Your task to perform on an android device: Search for "lg ultragear" on newegg, select the first entry, add it to the cart, then select checkout. Image 0: 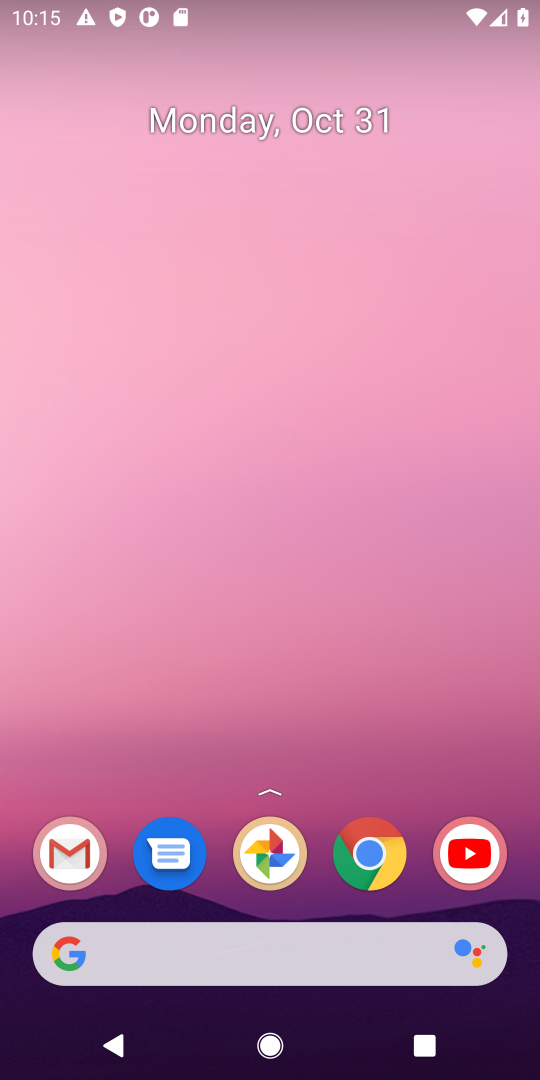
Step 0: click (287, 948)
Your task to perform on an android device: Search for "lg ultragear" on newegg, select the first entry, add it to the cart, then select checkout. Image 1: 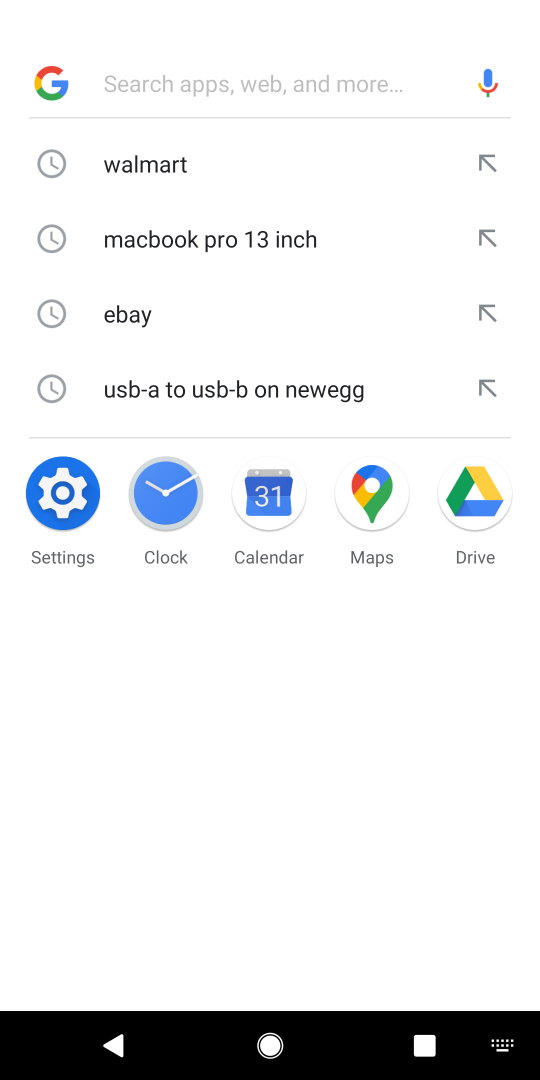
Step 1: type " newegg"
Your task to perform on an android device: Search for "lg ultragear" on newegg, select the first entry, add it to the cart, then select checkout. Image 2: 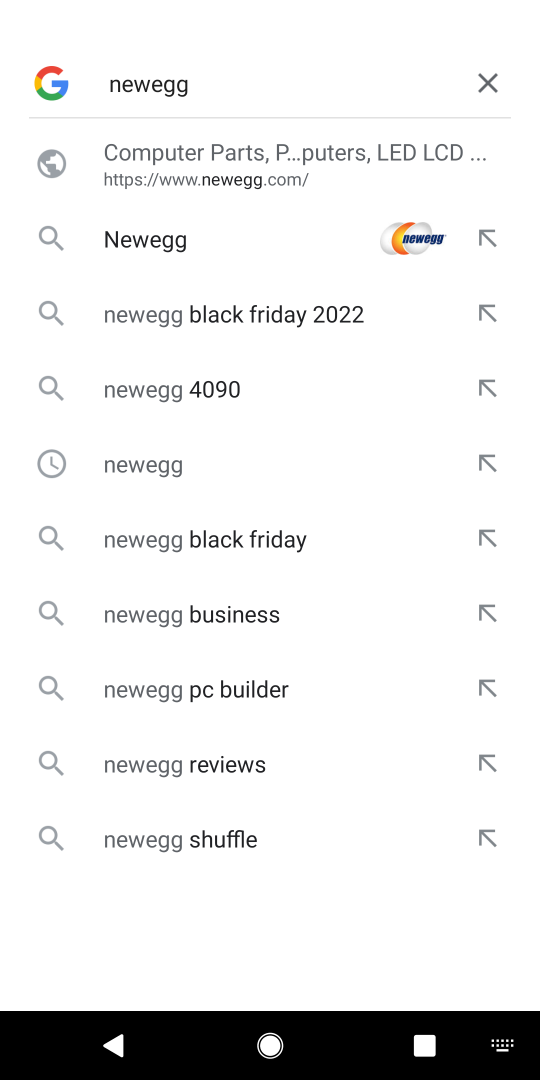
Step 2: type ""
Your task to perform on an android device: Search for "lg ultragear" on newegg, select the first entry, add it to the cart, then select checkout. Image 3: 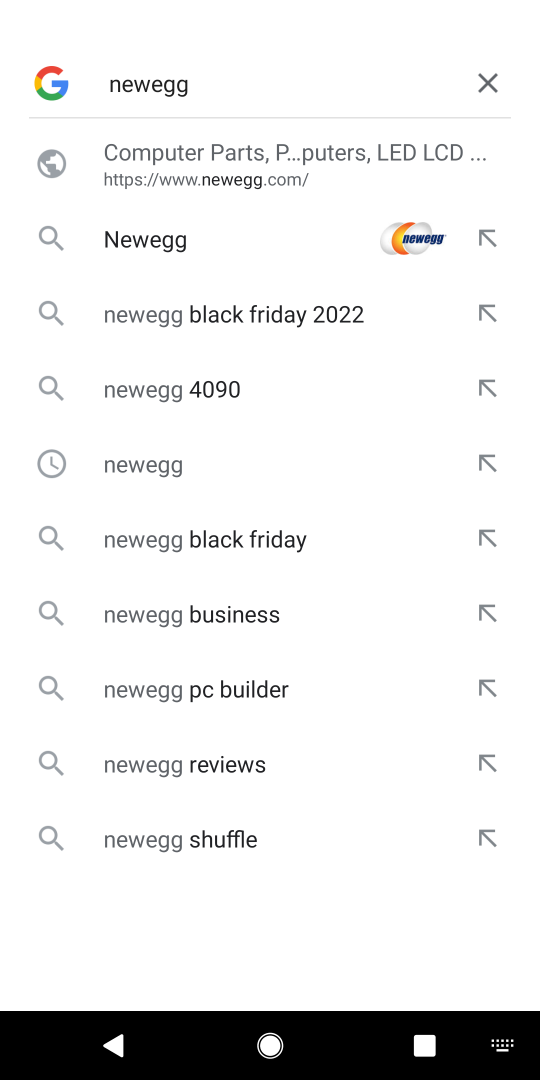
Step 3: press enter
Your task to perform on an android device: Search for "lg ultragear" on newegg, select the first entry, add it to the cart, then select checkout. Image 4: 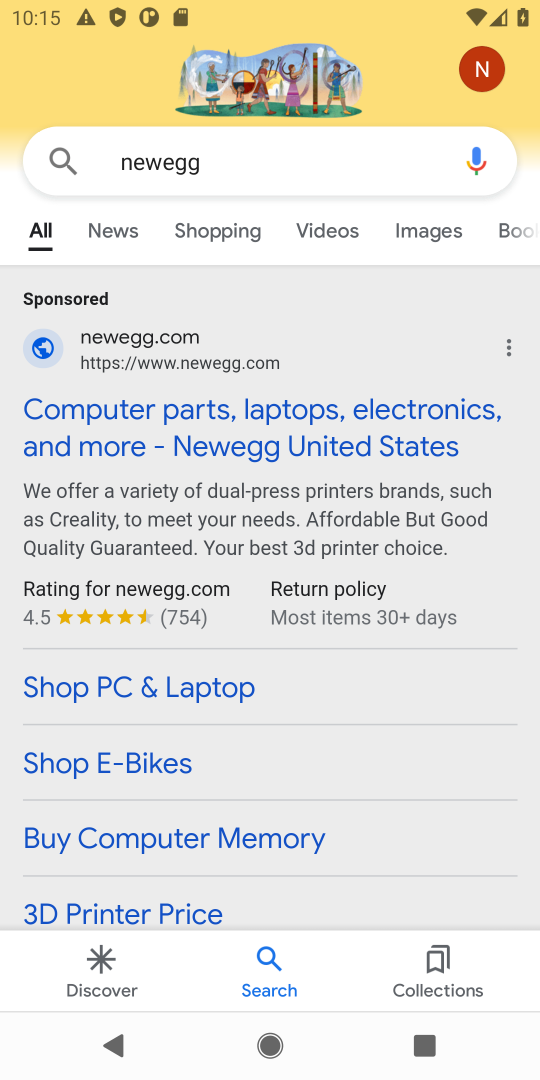
Step 4: click (178, 441)
Your task to perform on an android device: Search for "lg ultragear" on newegg, select the first entry, add it to the cart, then select checkout. Image 5: 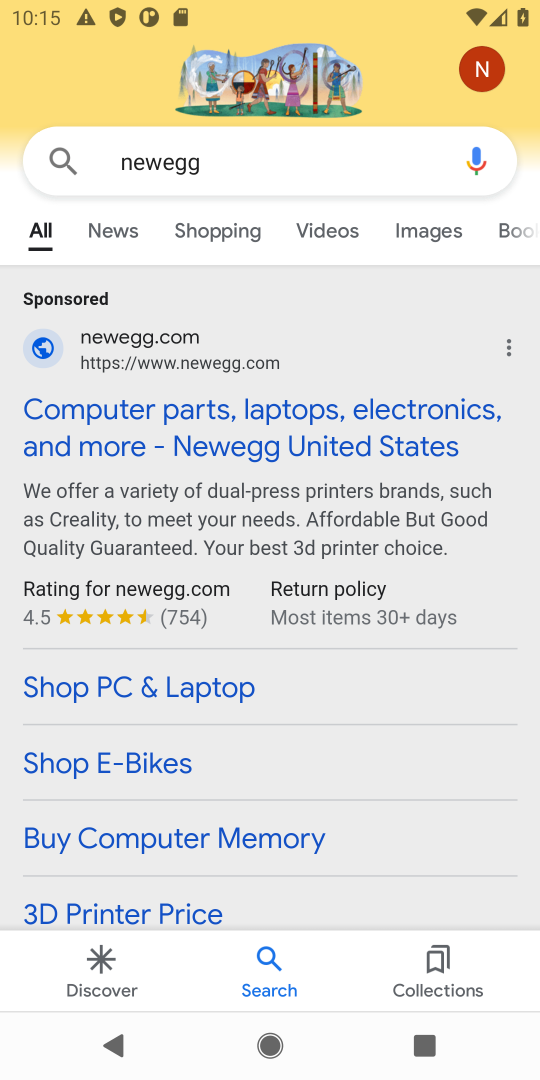
Step 5: click (242, 452)
Your task to perform on an android device: Search for "lg ultragear" on newegg, select the first entry, add it to the cart, then select checkout. Image 6: 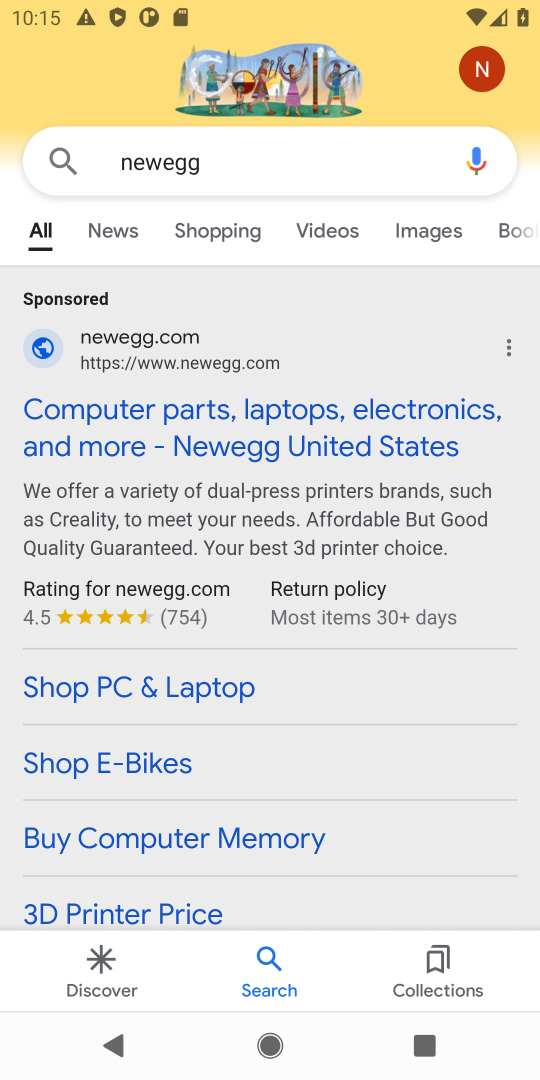
Step 6: click (242, 452)
Your task to perform on an android device: Search for "lg ultragear" on newegg, select the first entry, add it to the cart, then select checkout. Image 7: 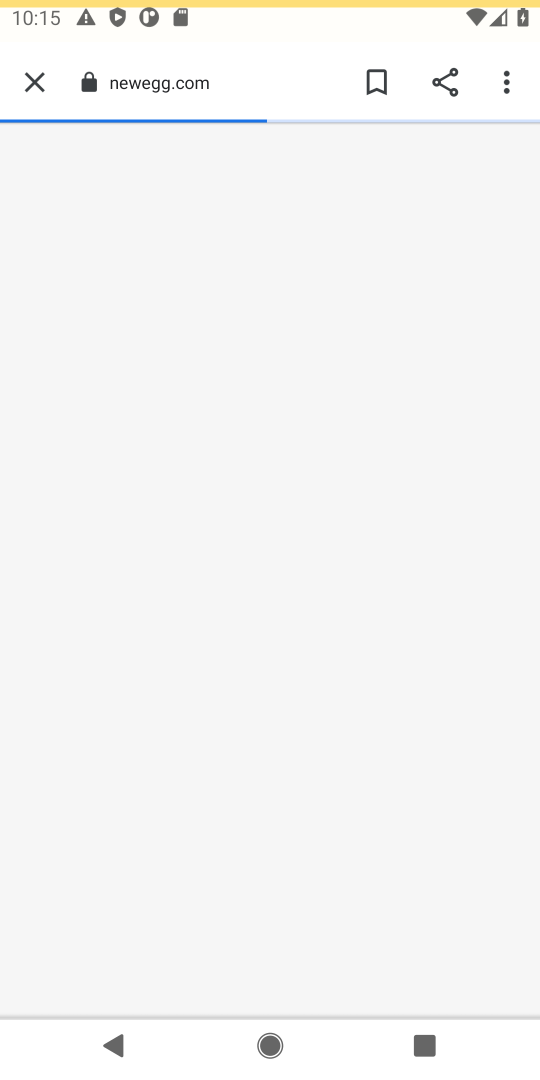
Step 7: click (242, 452)
Your task to perform on an android device: Search for "lg ultragear" on newegg, select the first entry, add it to the cart, then select checkout. Image 8: 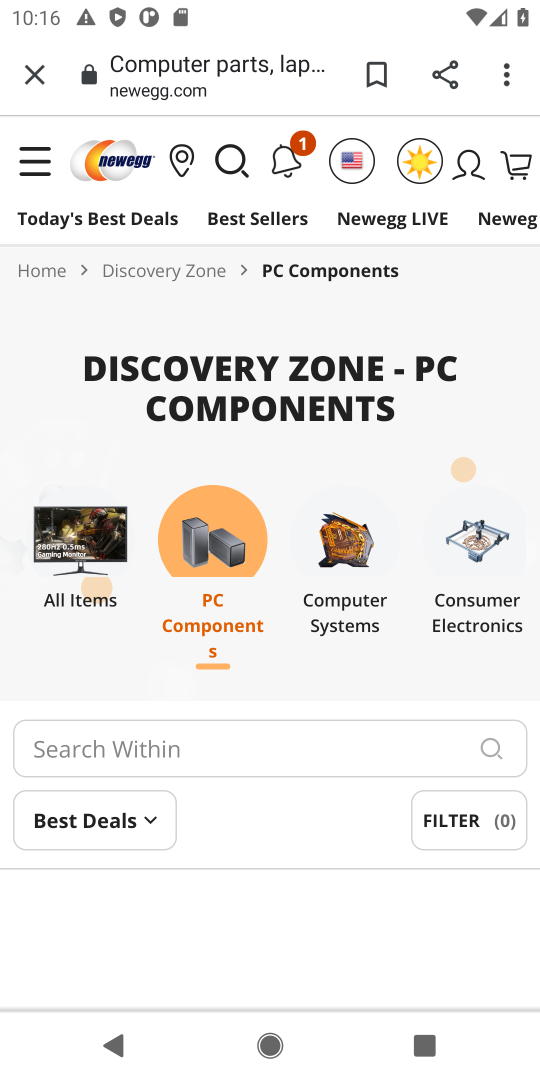
Step 8: drag from (434, 285) to (436, 544)
Your task to perform on an android device: Search for "lg ultragear" on newegg, select the first entry, add it to the cart, then select checkout. Image 9: 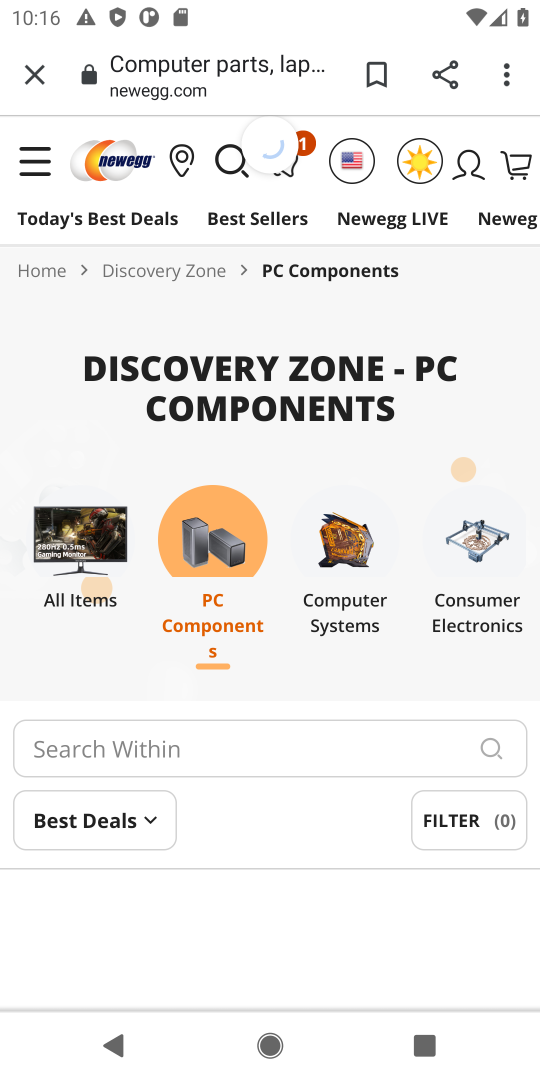
Step 9: click (256, 754)
Your task to perform on an android device: Search for "lg ultragear" on newegg, select the first entry, add it to the cart, then select checkout. Image 10: 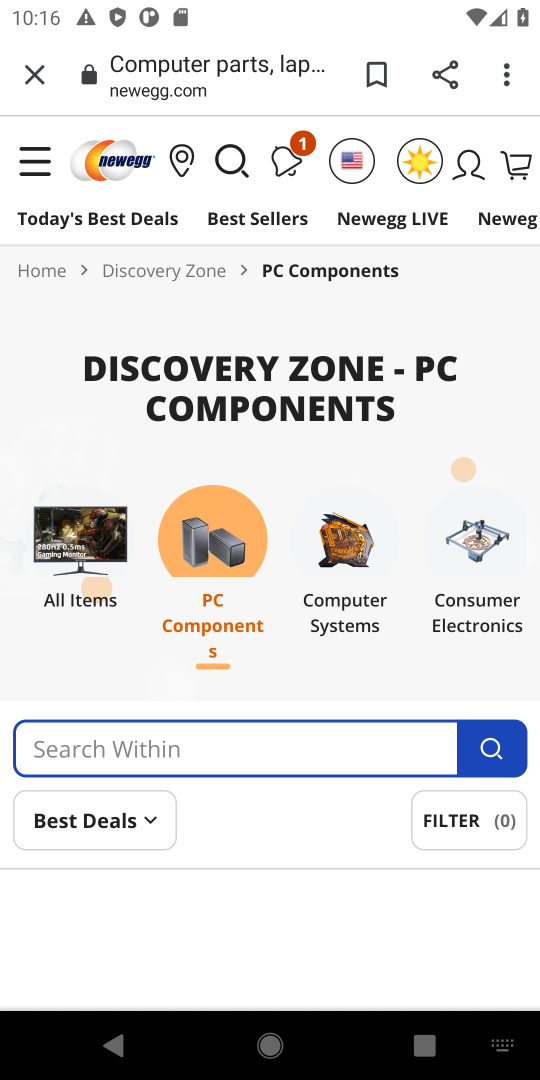
Step 10: type "lg ultragear"
Your task to perform on an android device: Search for "lg ultragear" on newegg, select the first entry, add it to the cart, then select checkout. Image 11: 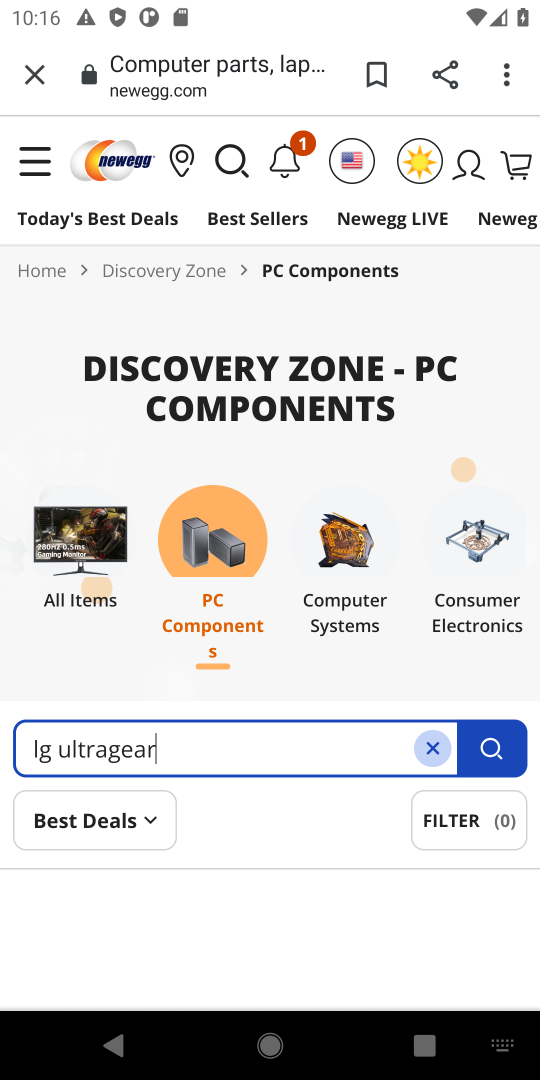
Step 11: type ""
Your task to perform on an android device: Search for "lg ultragear" on newegg, select the first entry, add it to the cart, then select checkout. Image 12: 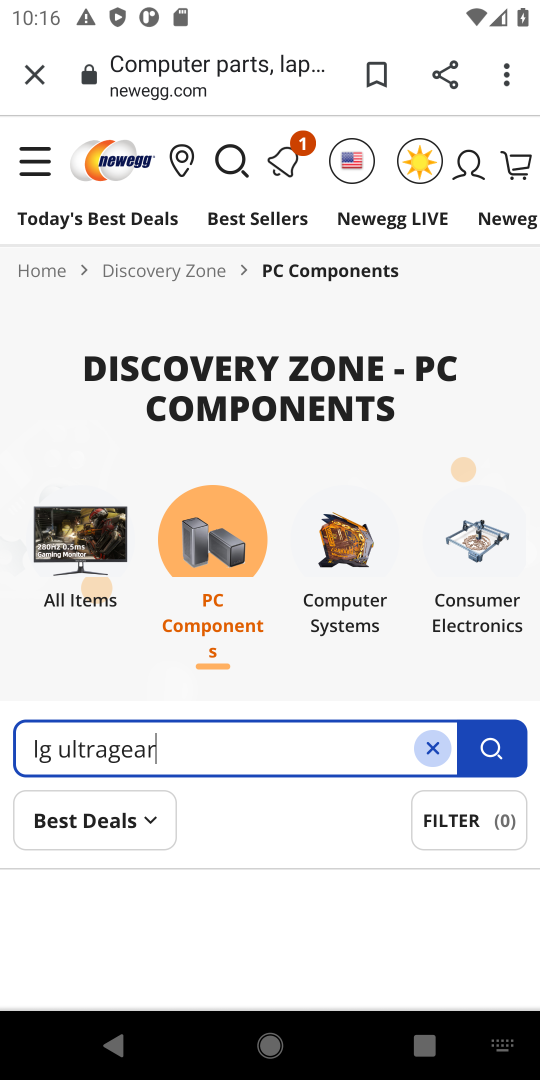
Step 12: click (504, 758)
Your task to perform on an android device: Search for "lg ultragear" on newegg, select the first entry, add it to the cart, then select checkout. Image 13: 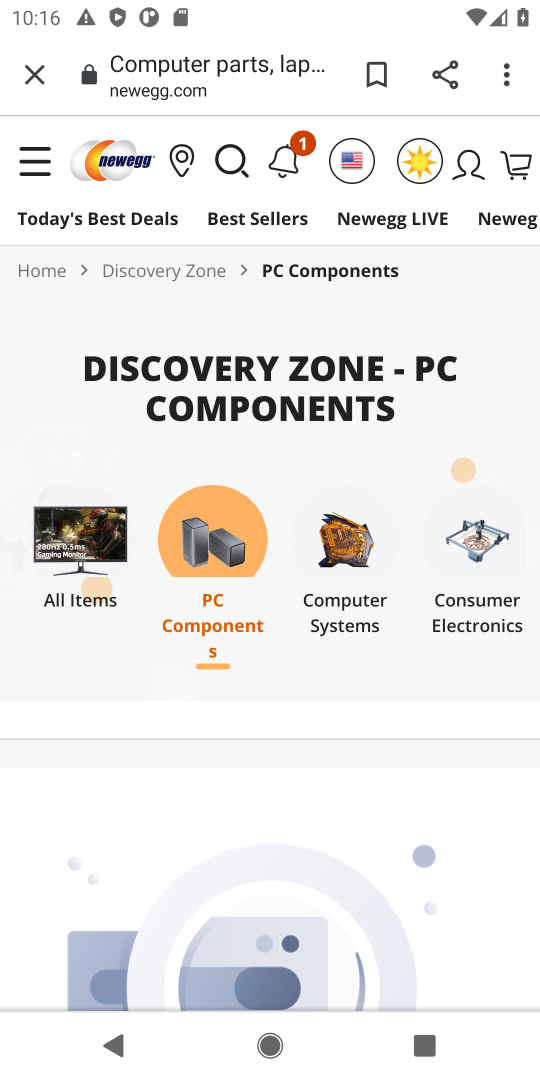
Step 13: drag from (355, 749) to (267, 368)
Your task to perform on an android device: Search for "lg ultragear" on newegg, select the first entry, add it to the cart, then select checkout. Image 14: 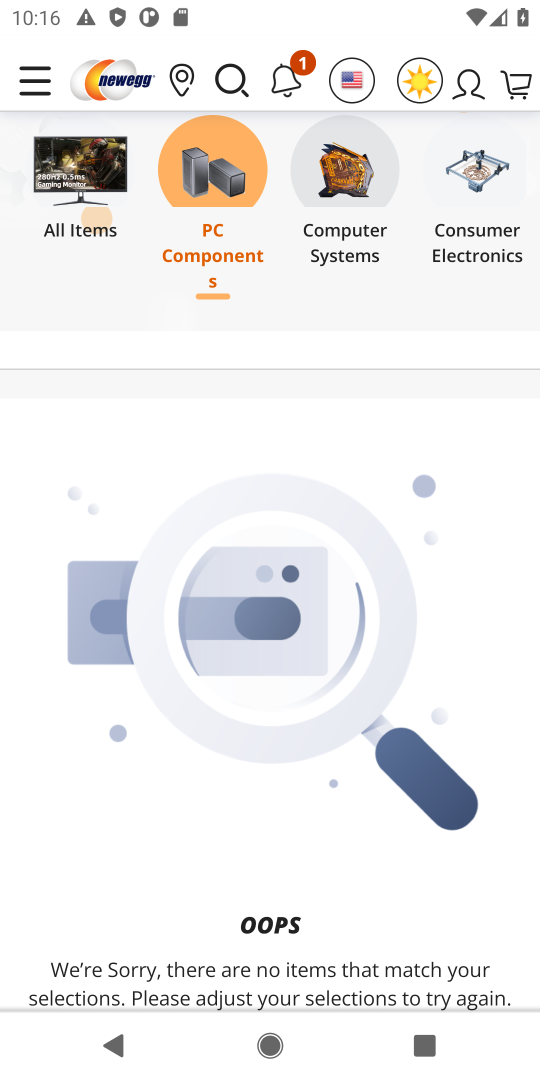
Step 14: drag from (213, 327) to (149, 849)
Your task to perform on an android device: Search for "lg ultragear" on newegg, select the first entry, add it to the cart, then select checkout. Image 15: 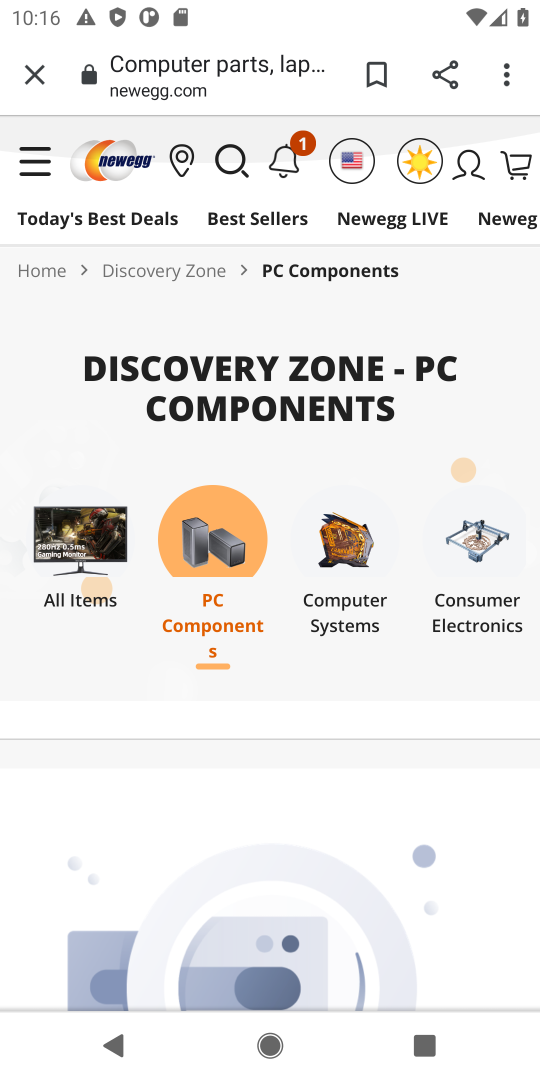
Step 15: click (76, 584)
Your task to perform on an android device: Search for "lg ultragear" on newegg, select the first entry, add it to the cart, then select checkout. Image 16: 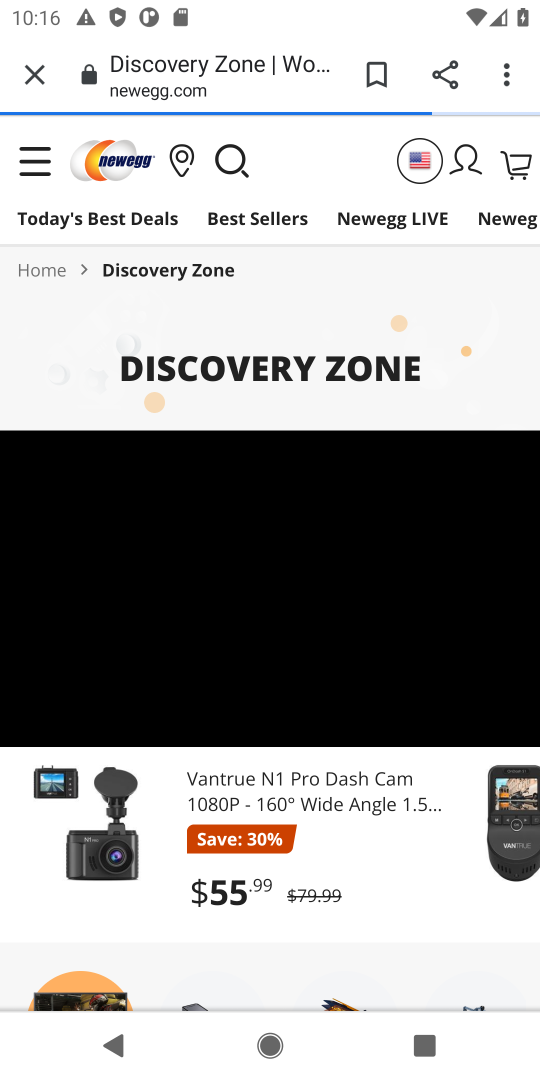
Step 16: click (73, 600)
Your task to perform on an android device: Search for "lg ultragear" on newegg, select the first entry, add it to the cart, then select checkout. Image 17: 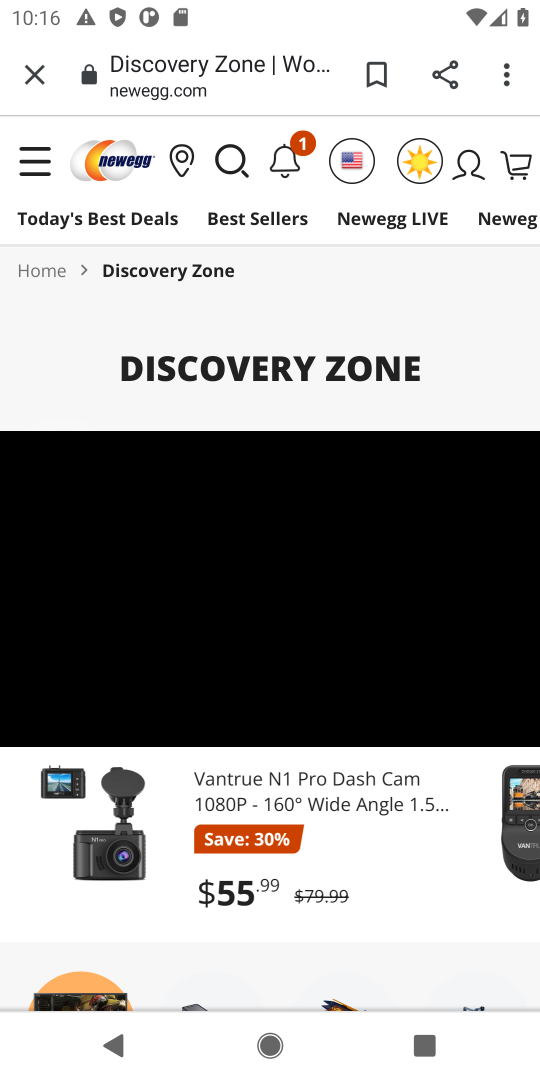
Step 17: task complete